Your task to perform on an android device: change keyboard looks Image 0: 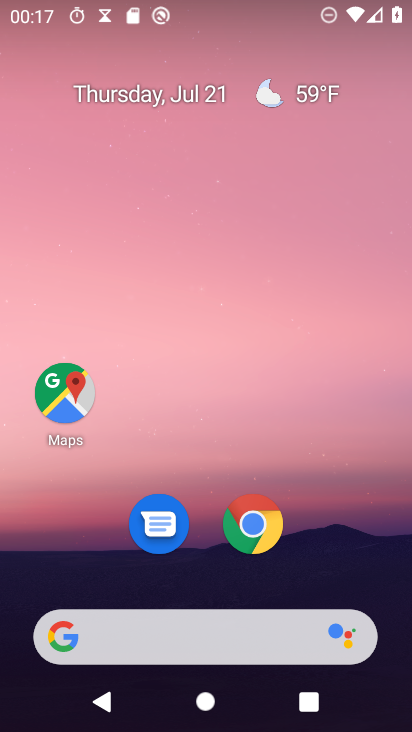
Step 0: drag from (213, 617) to (275, 120)
Your task to perform on an android device: change keyboard looks Image 1: 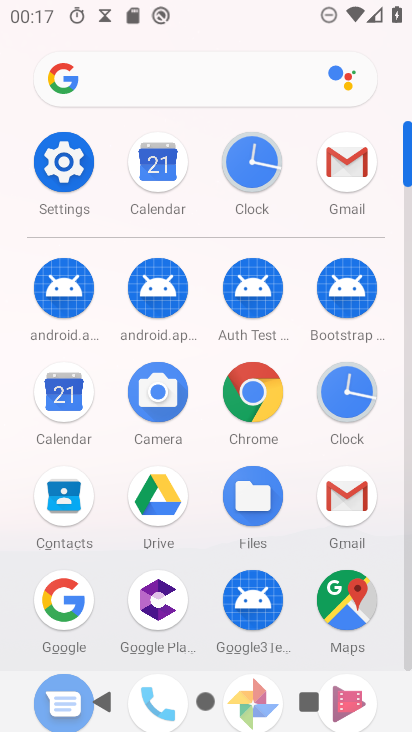
Step 1: click (67, 167)
Your task to perform on an android device: change keyboard looks Image 2: 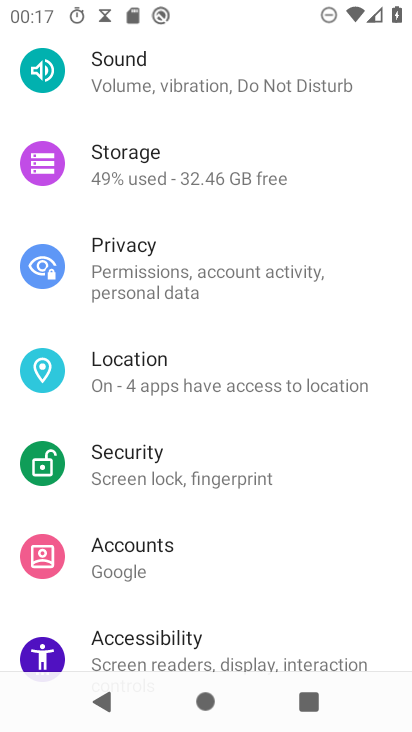
Step 2: drag from (236, 597) to (243, 4)
Your task to perform on an android device: change keyboard looks Image 3: 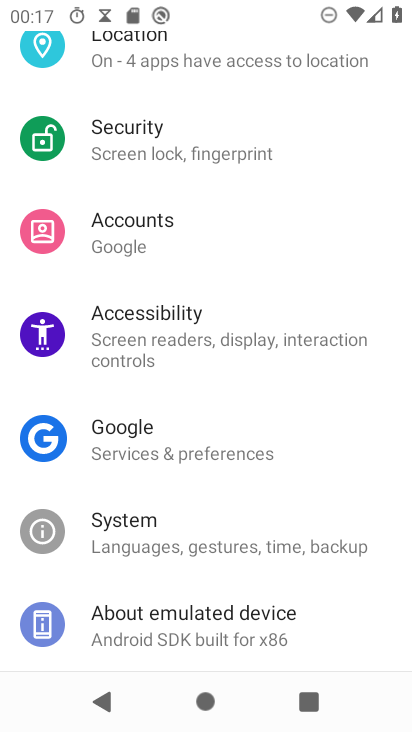
Step 3: click (205, 543)
Your task to perform on an android device: change keyboard looks Image 4: 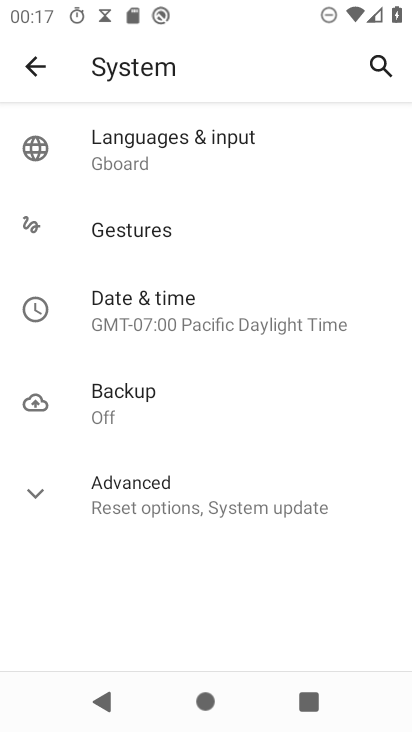
Step 4: click (145, 156)
Your task to perform on an android device: change keyboard looks Image 5: 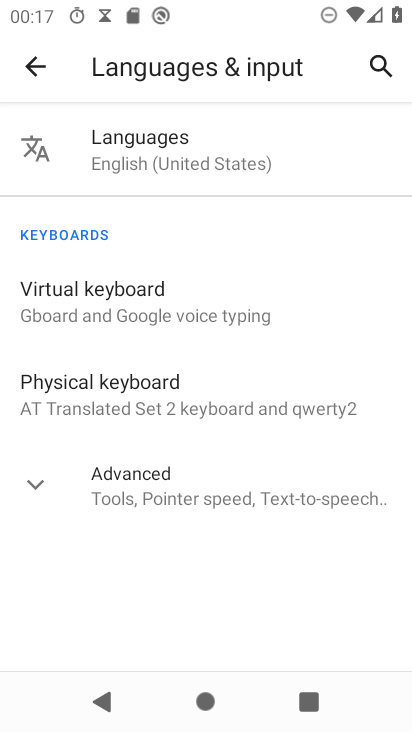
Step 5: click (112, 312)
Your task to perform on an android device: change keyboard looks Image 6: 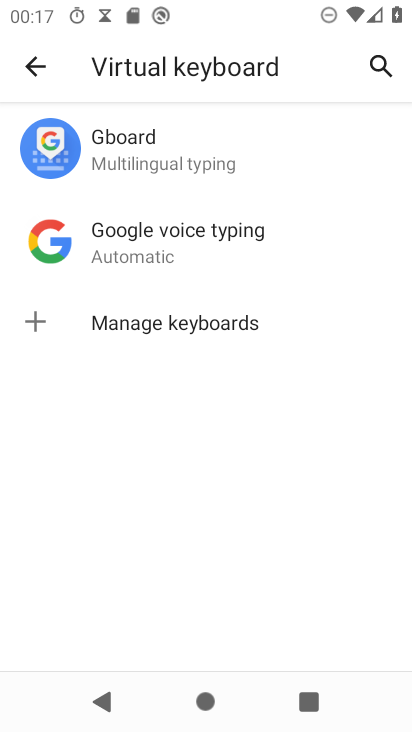
Step 6: click (142, 165)
Your task to perform on an android device: change keyboard looks Image 7: 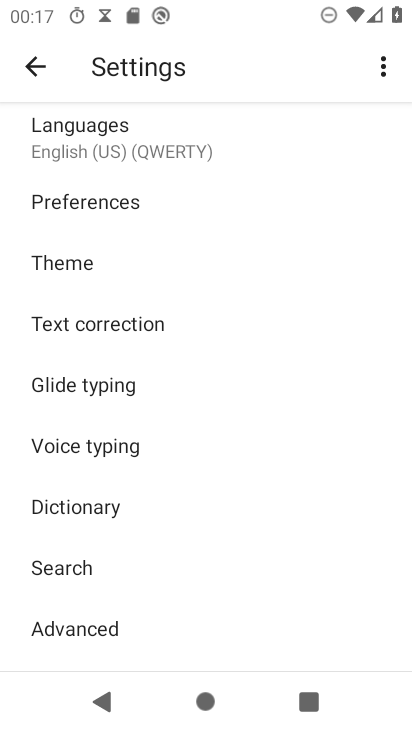
Step 7: click (88, 264)
Your task to perform on an android device: change keyboard looks Image 8: 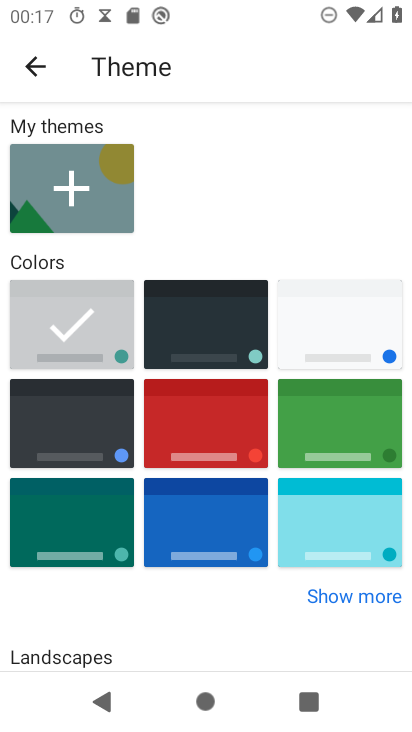
Step 8: click (322, 527)
Your task to perform on an android device: change keyboard looks Image 9: 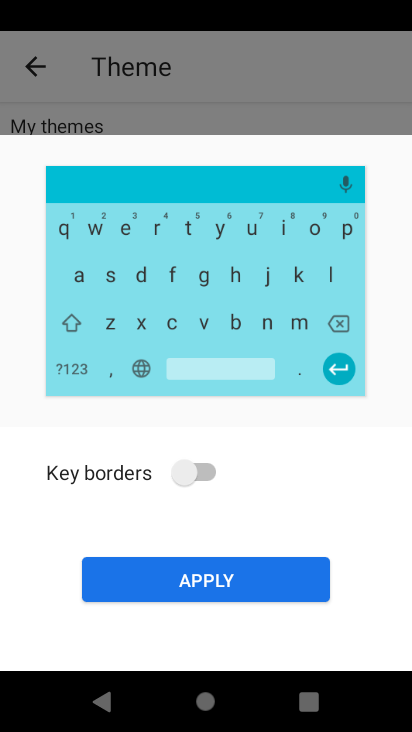
Step 9: click (208, 586)
Your task to perform on an android device: change keyboard looks Image 10: 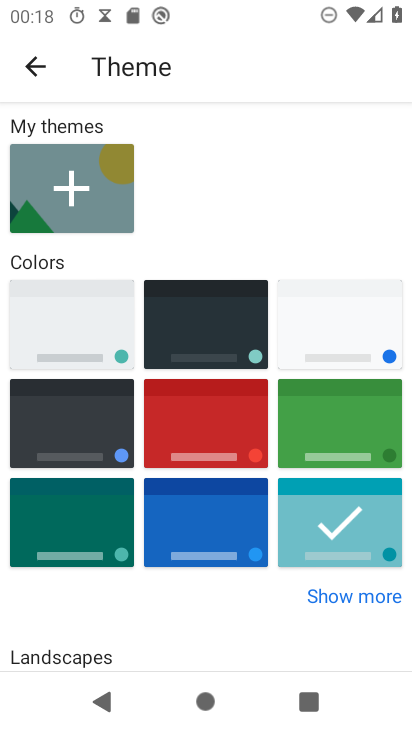
Step 10: task complete